Your task to perform on an android device: toggle sleep mode Image 0: 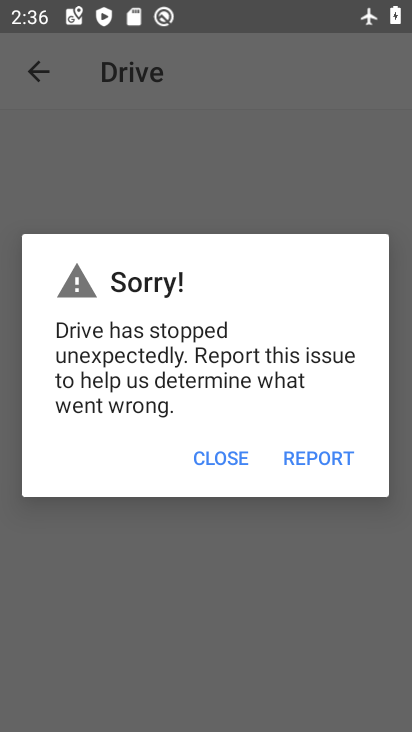
Step 0: drag from (357, 546) to (322, 151)
Your task to perform on an android device: toggle sleep mode Image 1: 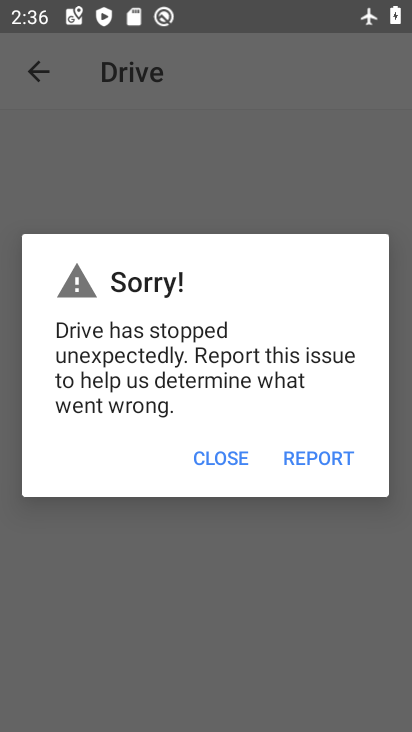
Step 1: press home button
Your task to perform on an android device: toggle sleep mode Image 2: 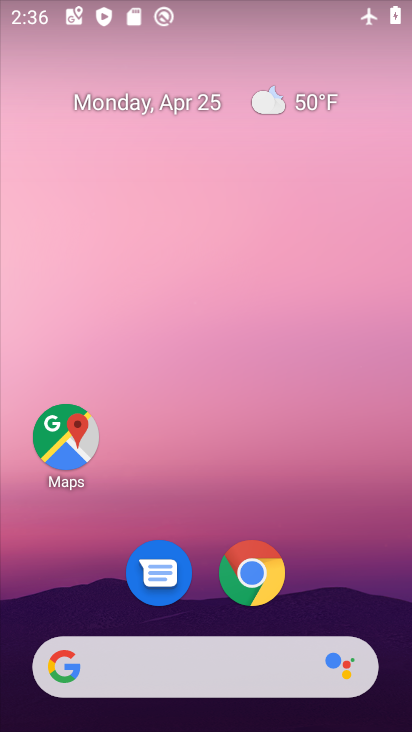
Step 2: drag from (351, 584) to (331, 70)
Your task to perform on an android device: toggle sleep mode Image 3: 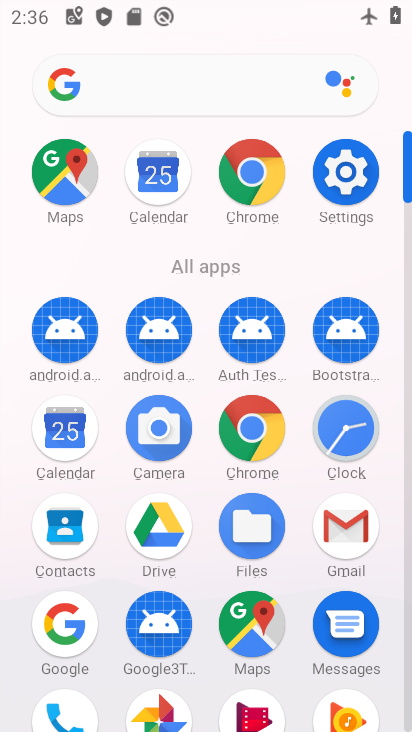
Step 3: click (357, 183)
Your task to perform on an android device: toggle sleep mode Image 4: 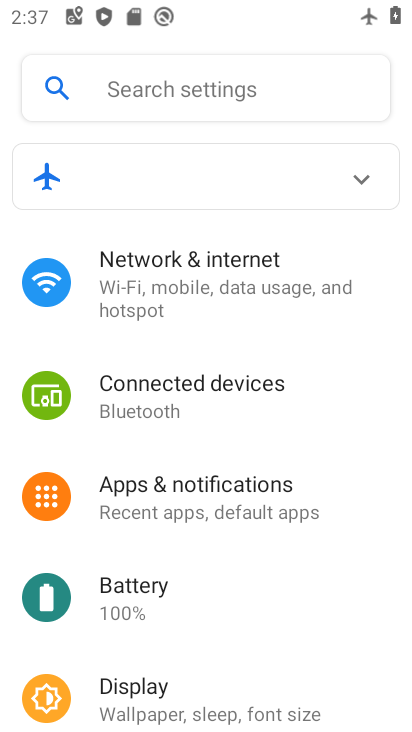
Step 4: drag from (238, 519) to (249, 188)
Your task to perform on an android device: toggle sleep mode Image 5: 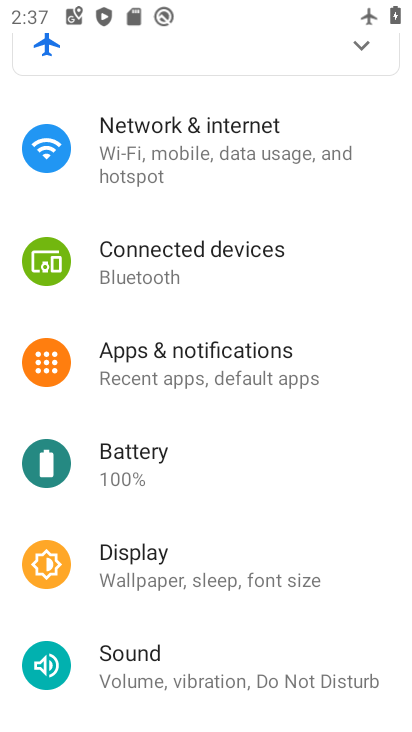
Step 5: click (127, 541)
Your task to perform on an android device: toggle sleep mode Image 6: 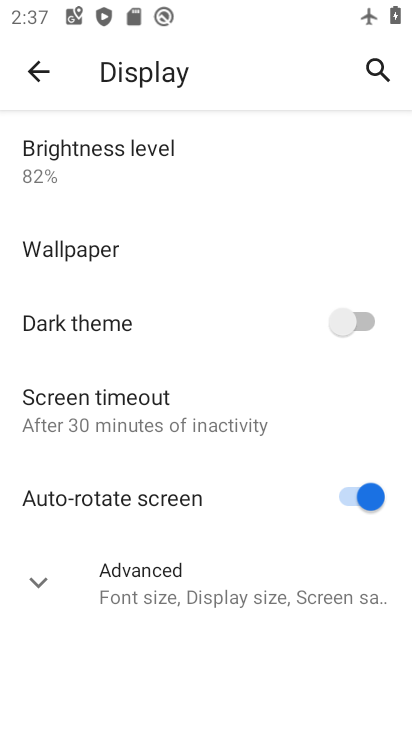
Step 6: click (56, 403)
Your task to perform on an android device: toggle sleep mode Image 7: 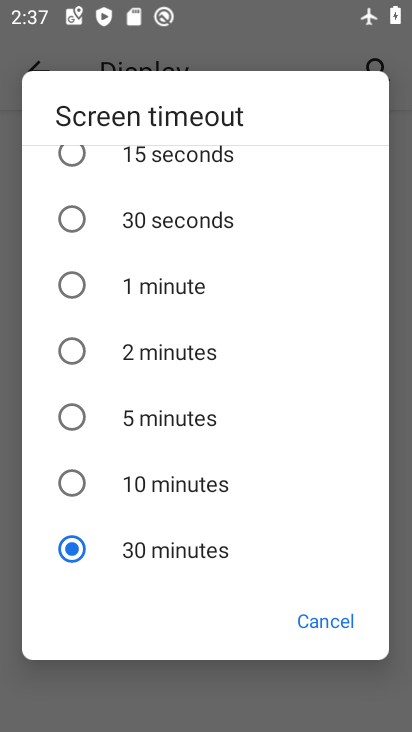
Step 7: click (76, 356)
Your task to perform on an android device: toggle sleep mode Image 8: 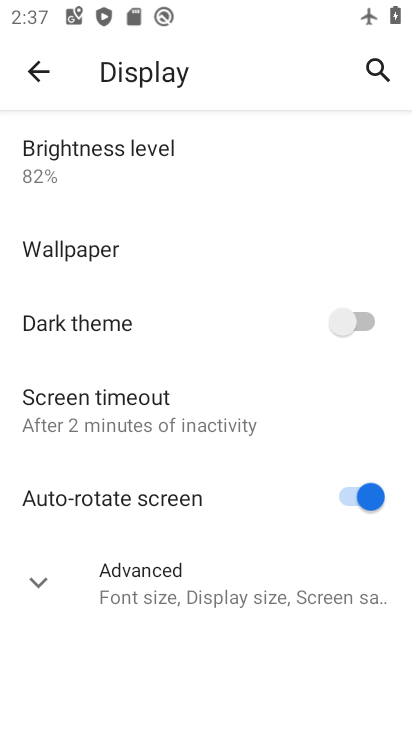
Step 8: task complete